Your task to perform on an android device: open device folders in google photos Image 0: 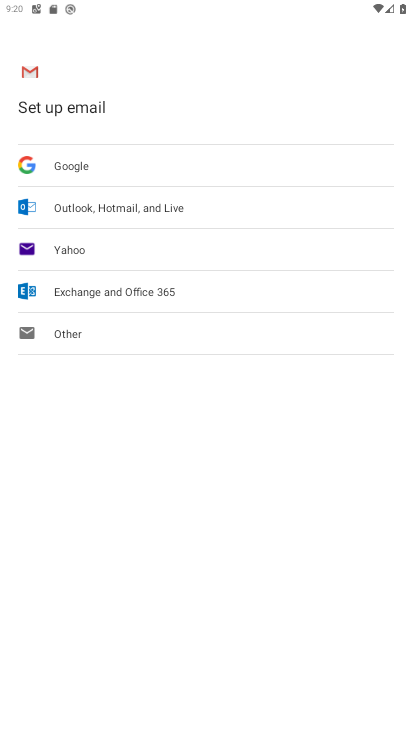
Step 0: press home button
Your task to perform on an android device: open device folders in google photos Image 1: 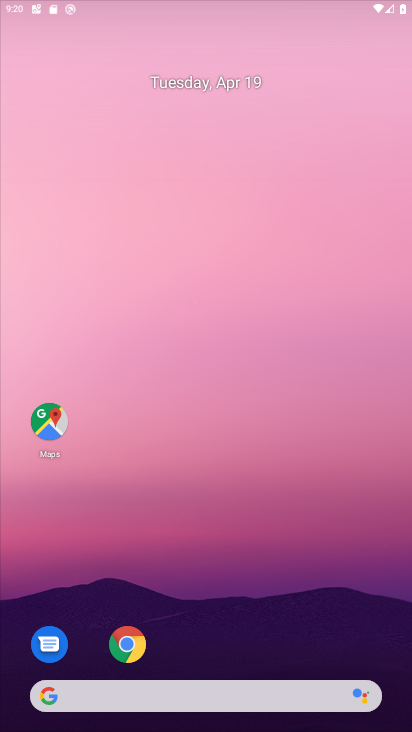
Step 1: drag from (281, 543) to (236, 59)
Your task to perform on an android device: open device folders in google photos Image 2: 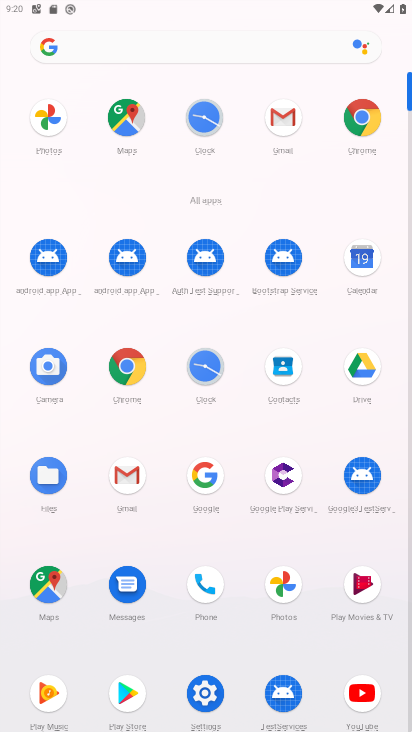
Step 2: click (41, 130)
Your task to perform on an android device: open device folders in google photos Image 3: 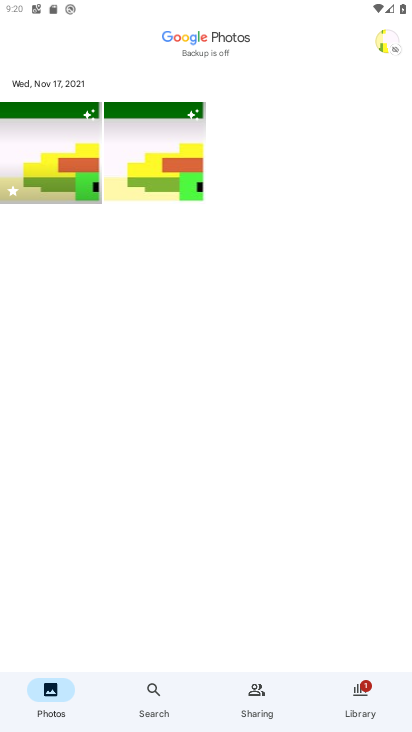
Step 3: click (384, 39)
Your task to perform on an android device: open device folders in google photos Image 4: 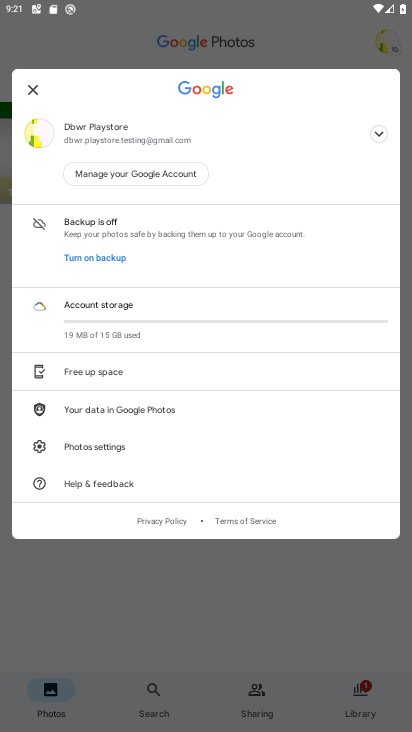
Step 4: task complete